Your task to perform on an android device: check storage Image 0: 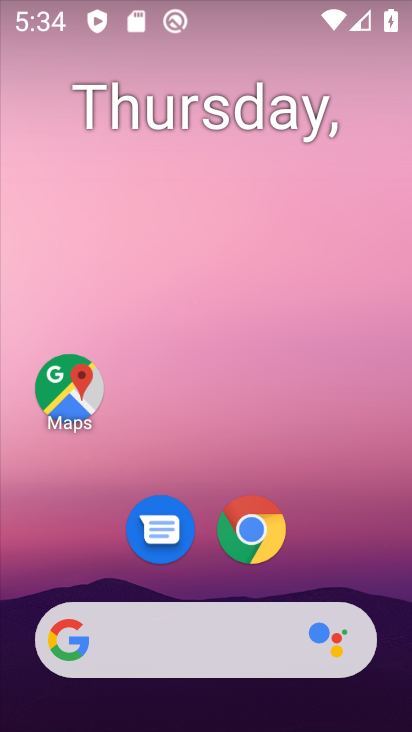
Step 0: drag from (317, 560) to (170, 29)
Your task to perform on an android device: check storage Image 1: 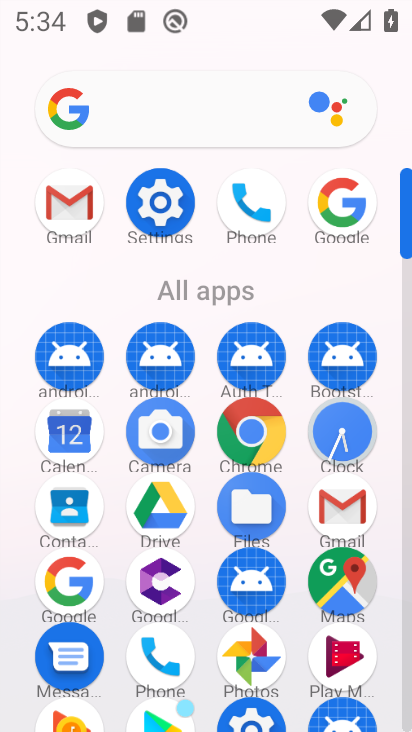
Step 1: click (162, 203)
Your task to perform on an android device: check storage Image 2: 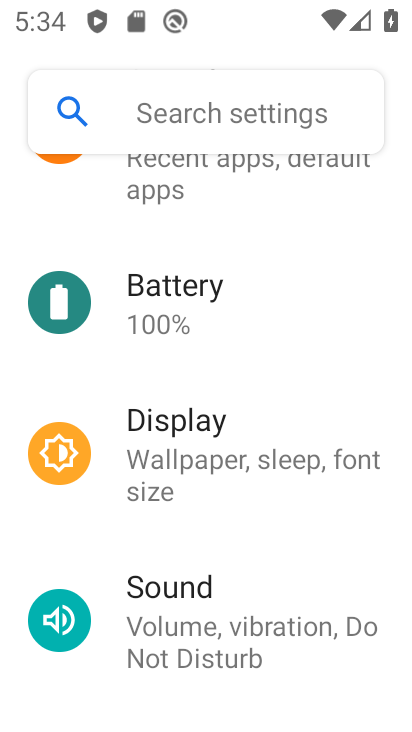
Step 2: drag from (235, 303) to (247, 437)
Your task to perform on an android device: check storage Image 3: 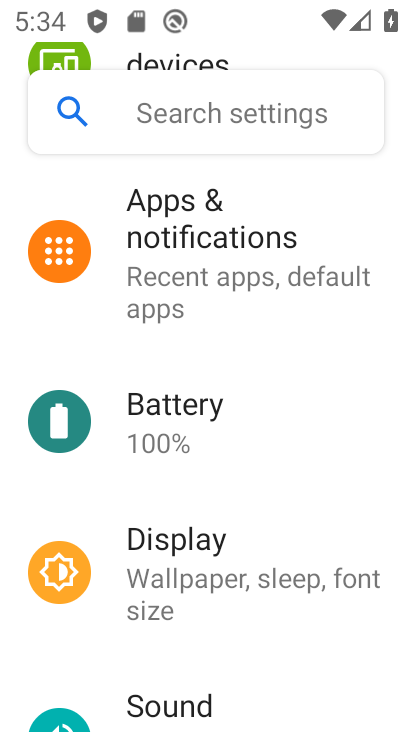
Step 3: drag from (254, 464) to (284, 324)
Your task to perform on an android device: check storage Image 4: 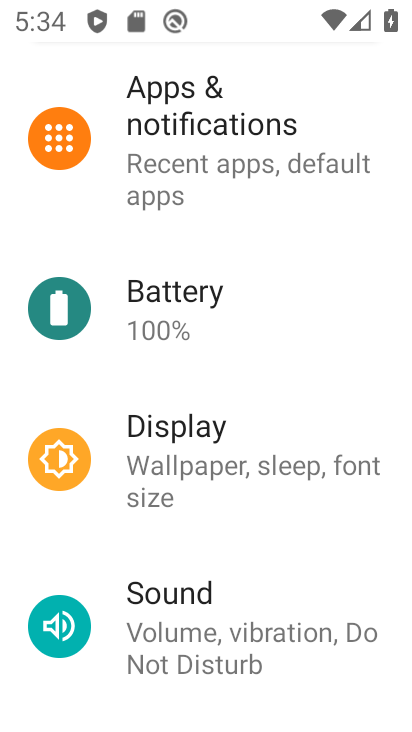
Step 4: drag from (237, 530) to (266, 395)
Your task to perform on an android device: check storage Image 5: 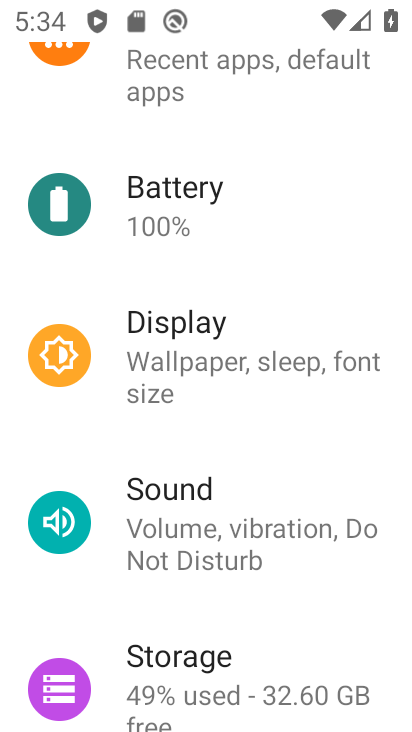
Step 5: click (167, 655)
Your task to perform on an android device: check storage Image 6: 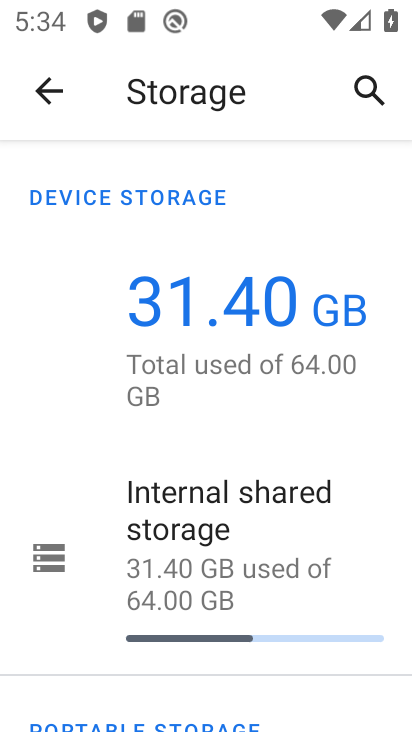
Step 6: task complete